Your task to perform on an android device: Do I have any events tomorrow? Image 0: 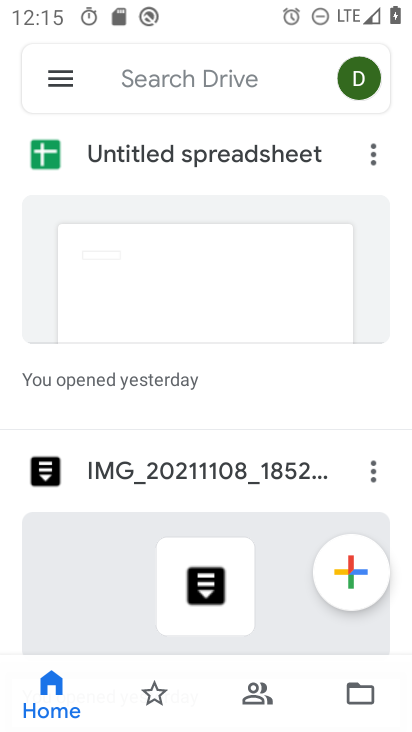
Step 0: press home button
Your task to perform on an android device: Do I have any events tomorrow? Image 1: 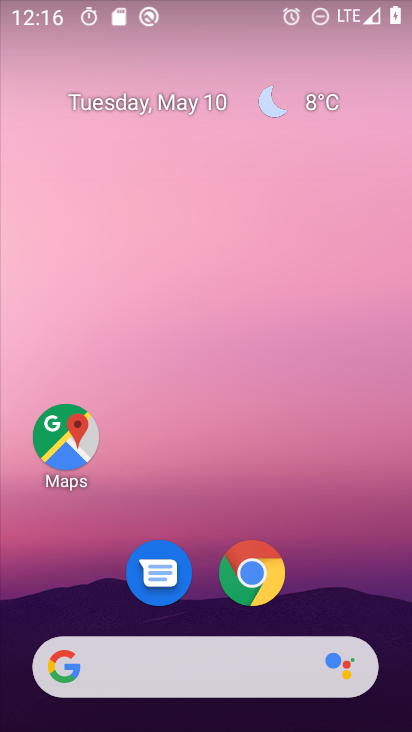
Step 1: drag from (348, 497) to (288, 111)
Your task to perform on an android device: Do I have any events tomorrow? Image 2: 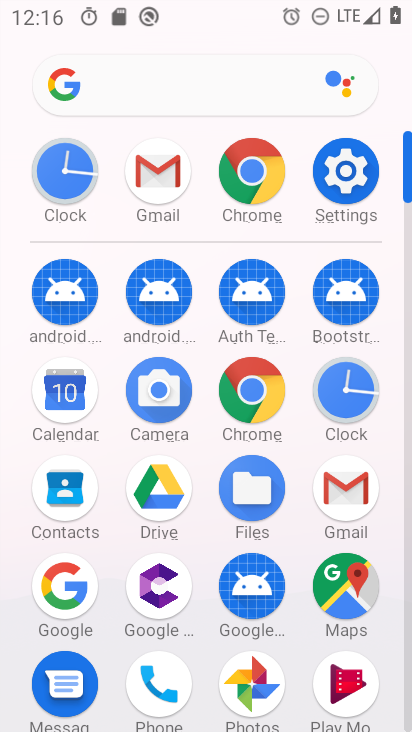
Step 2: click (54, 408)
Your task to perform on an android device: Do I have any events tomorrow? Image 3: 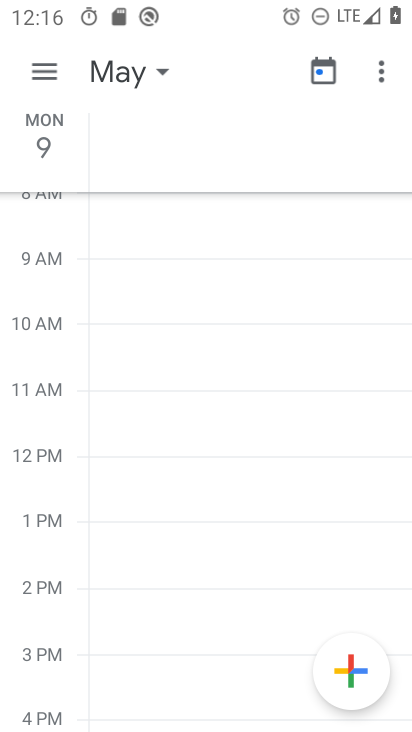
Step 3: click (140, 75)
Your task to perform on an android device: Do I have any events tomorrow? Image 4: 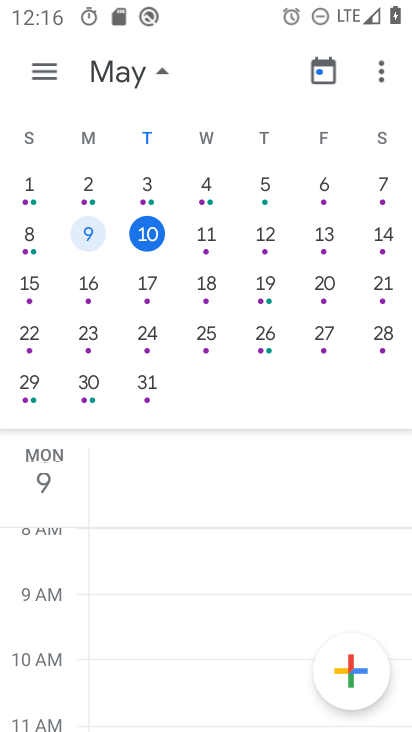
Step 4: click (149, 227)
Your task to perform on an android device: Do I have any events tomorrow? Image 5: 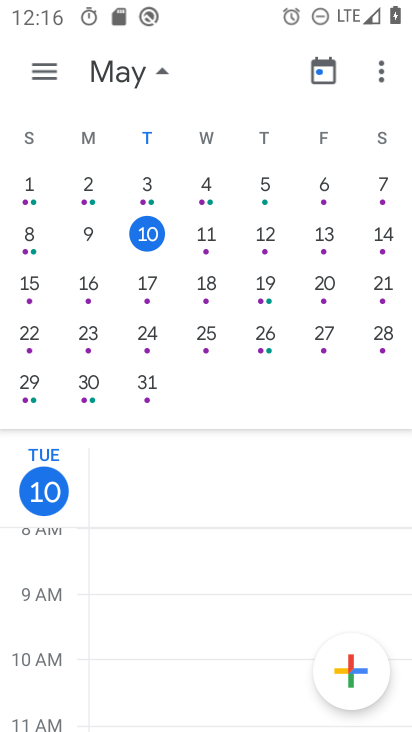
Step 5: click (200, 233)
Your task to perform on an android device: Do I have any events tomorrow? Image 6: 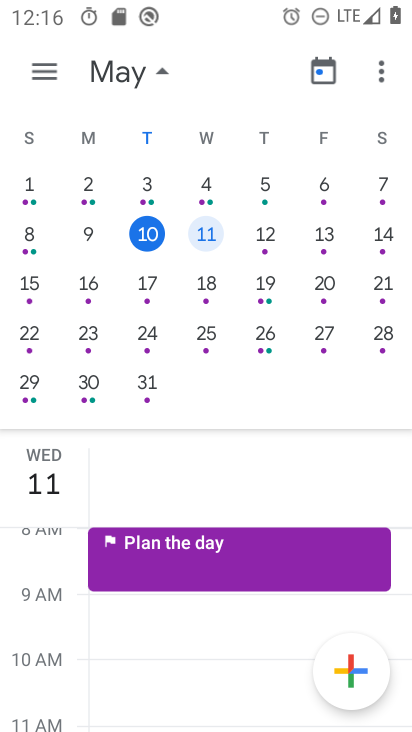
Step 6: task complete